Your task to perform on an android device: toggle wifi Image 0: 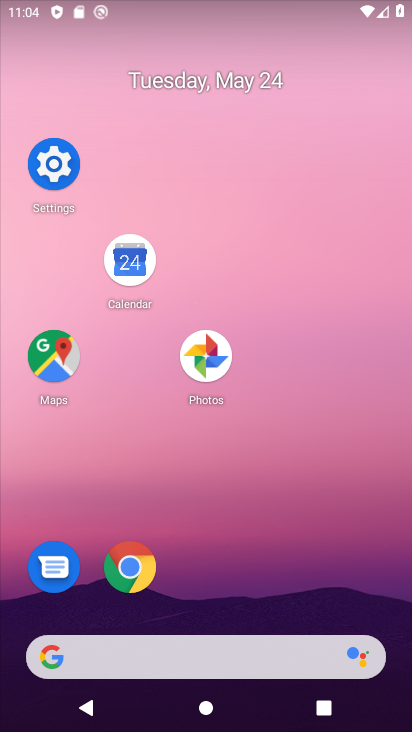
Step 0: click (57, 158)
Your task to perform on an android device: toggle wifi Image 1: 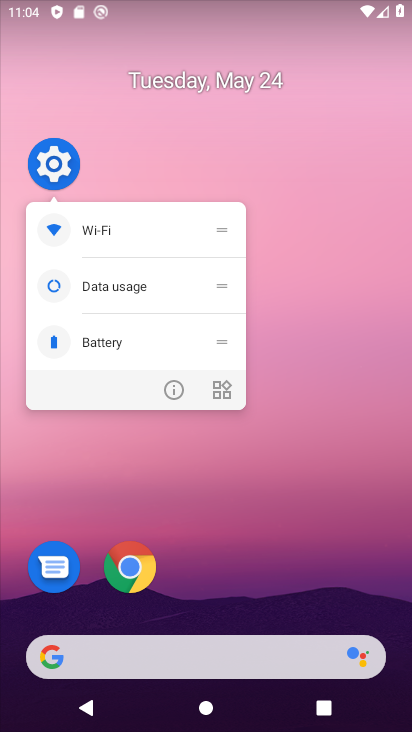
Step 1: click (125, 222)
Your task to perform on an android device: toggle wifi Image 2: 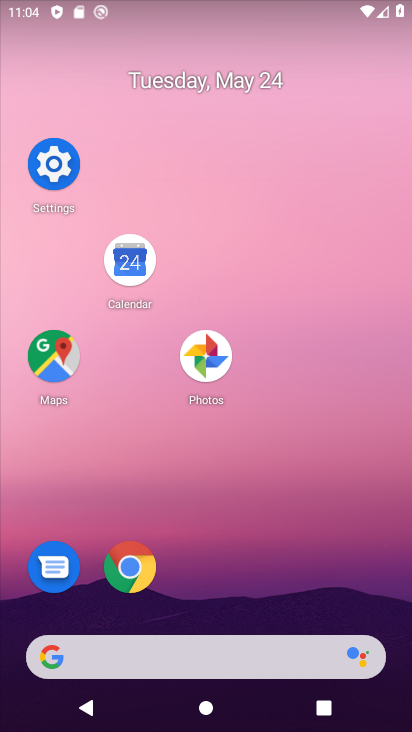
Step 2: click (58, 171)
Your task to perform on an android device: toggle wifi Image 3: 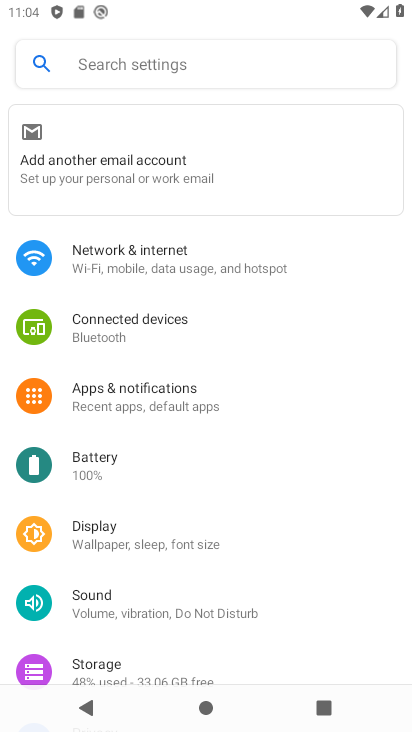
Step 3: click (197, 277)
Your task to perform on an android device: toggle wifi Image 4: 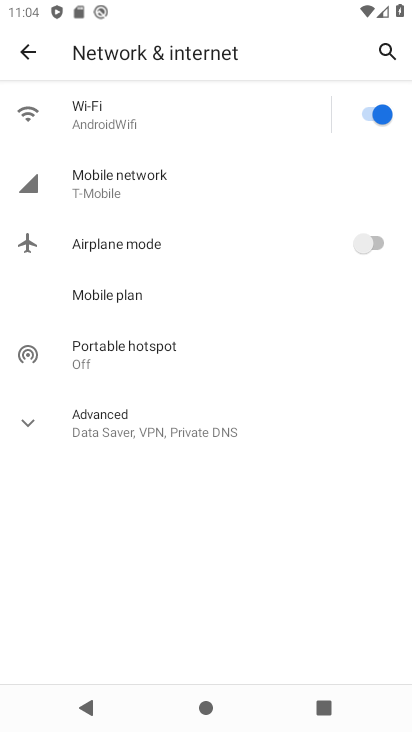
Step 4: click (378, 102)
Your task to perform on an android device: toggle wifi Image 5: 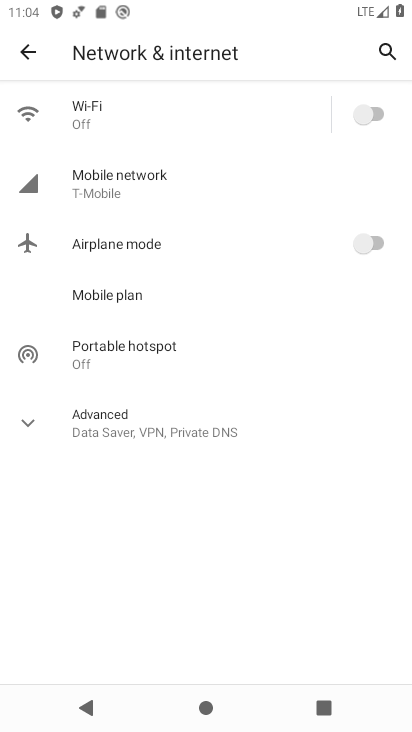
Step 5: task complete